Your task to perform on an android device: Search for seafood restaurants on Google Maps Image 0: 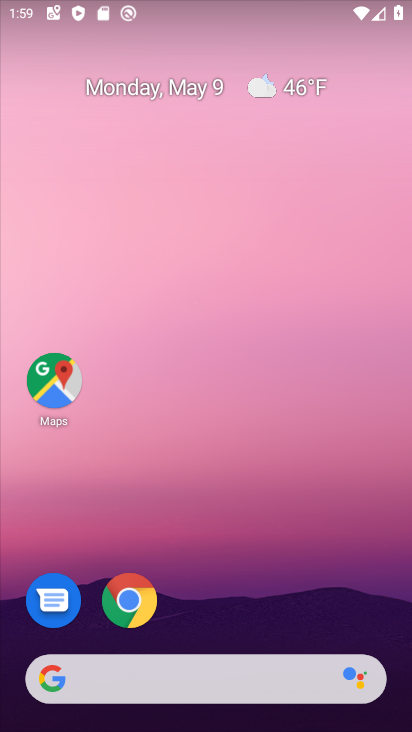
Step 0: click (45, 382)
Your task to perform on an android device: Search for seafood restaurants on Google Maps Image 1: 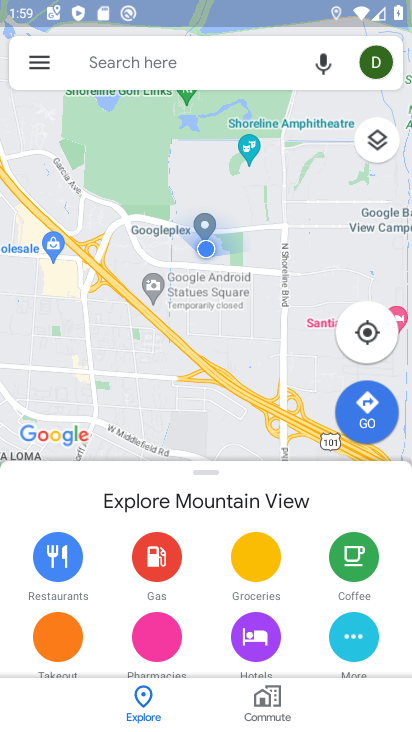
Step 1: click (196, 65)
Your task to perform on an android device: Search for seafood restaurants on Google Maps Image 2: 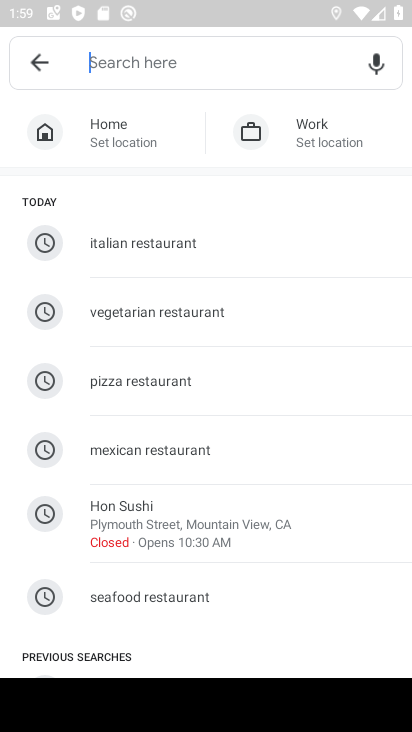
Step 2: click (191, 616)
Your task to perform on an android device: Search for seafood restaurants on Google Maps Image 3: 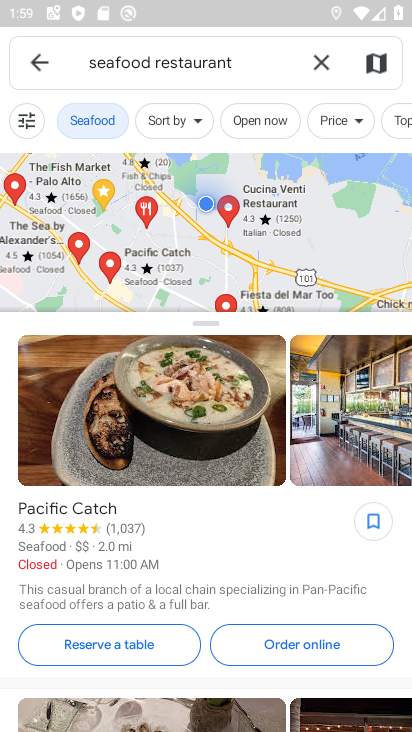
Step 3: task complete